Your task to perform on an android device: Go to wifi settings Image 0: 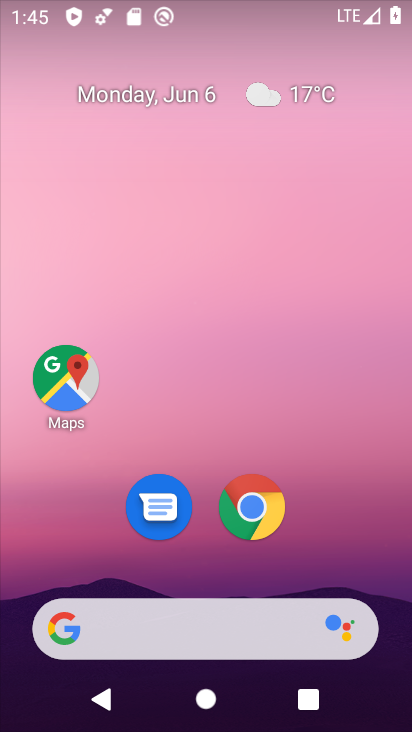
Step 0: drag from (331, 563) to (241, 166)
Your task to perform on an android device: Go to wifi settings Image 1: 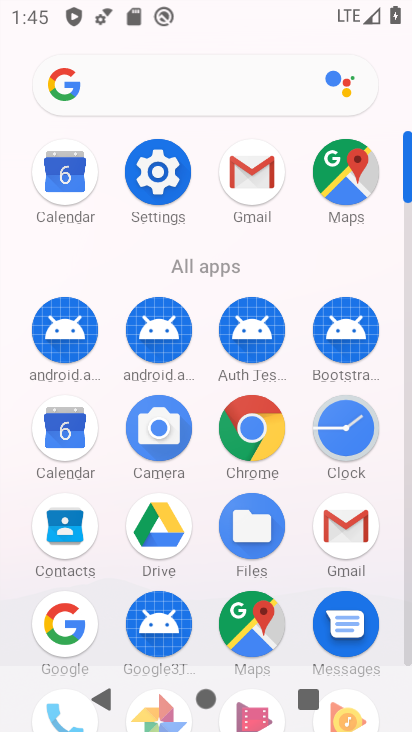
Step 1: click (161, 191)
Your task to perform on an android device: Go to wifi settings Image 2: 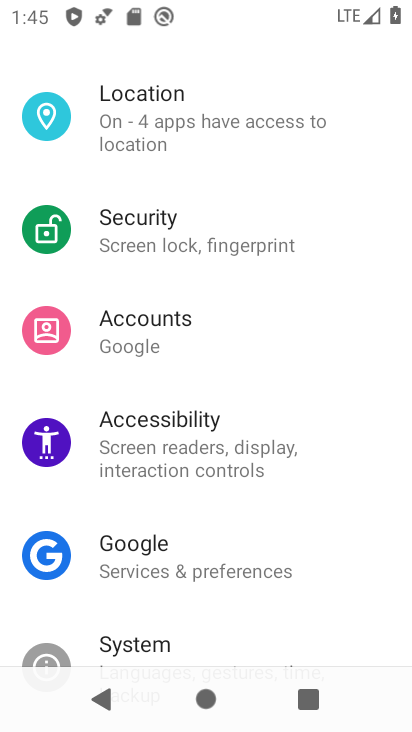
Step 2: drag from (253, 189) to (300, 716)
Your task to perform on an android device: Go to wifi settings Image 3: 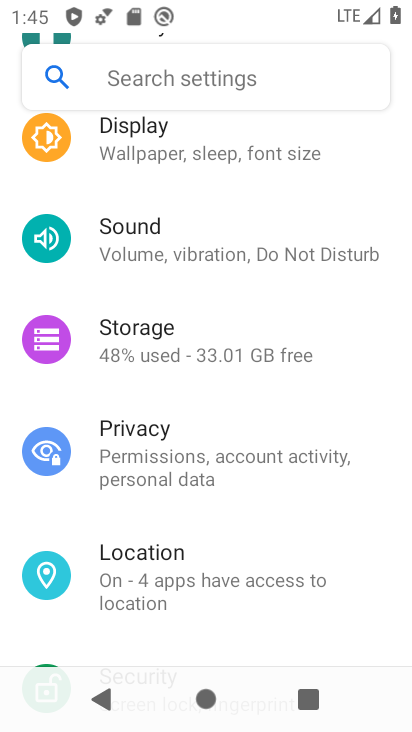
Step 3: drag from (159, 202) to (255, 582)
Your task to perform on an android device: Go to wifi settings Image 4: 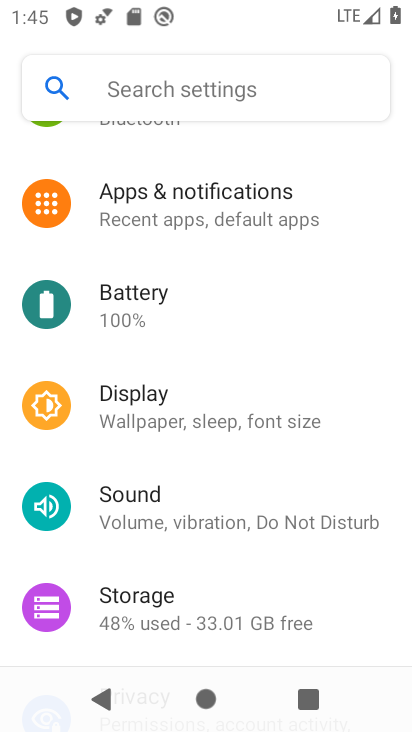
Step 4: drag from (124, 143) to (185, 465)
Your task to perform on an android device: Go to wifi settings Image 5: 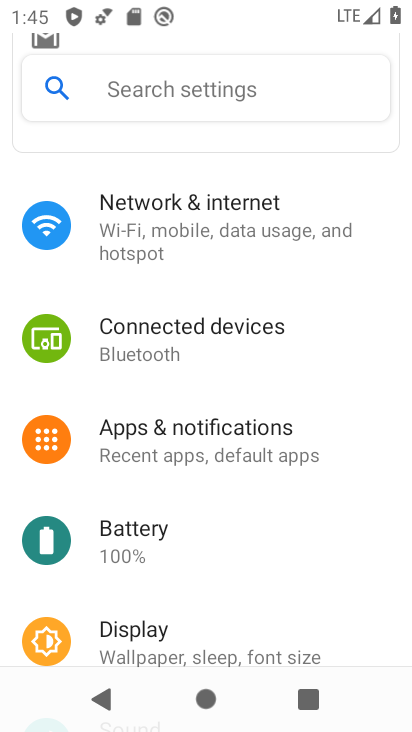
Step 5: click (183, 258)
Your task to perform on an android device: Go to wifi settings Image 6: 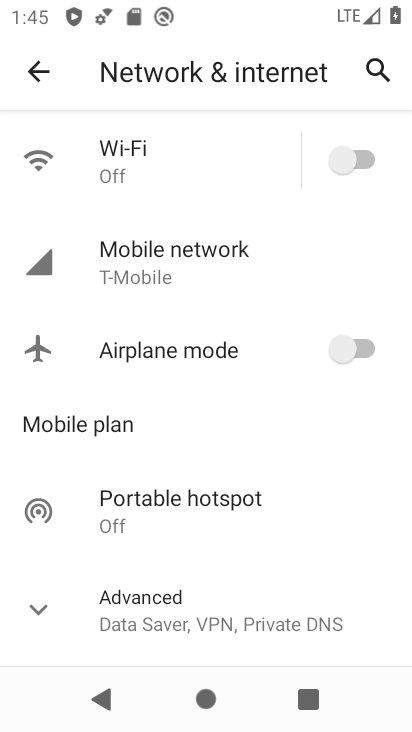
Step 6: click (111, 177)
Your task to perform on an android device: Go to wifi settings Image 7: 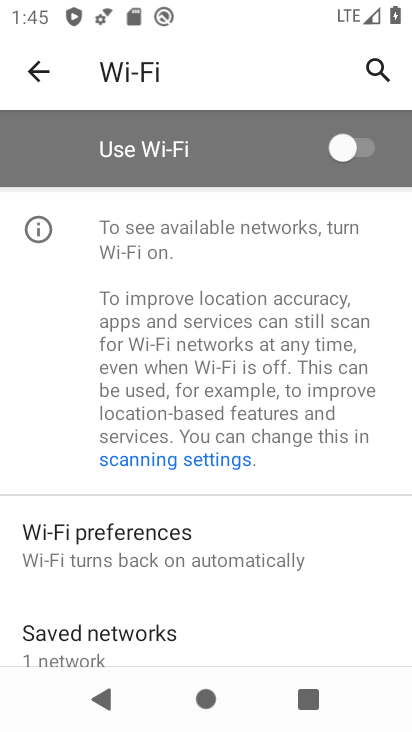
Step 7: task complete